Your task to perform on an android device: toggle notification dots Image 0: 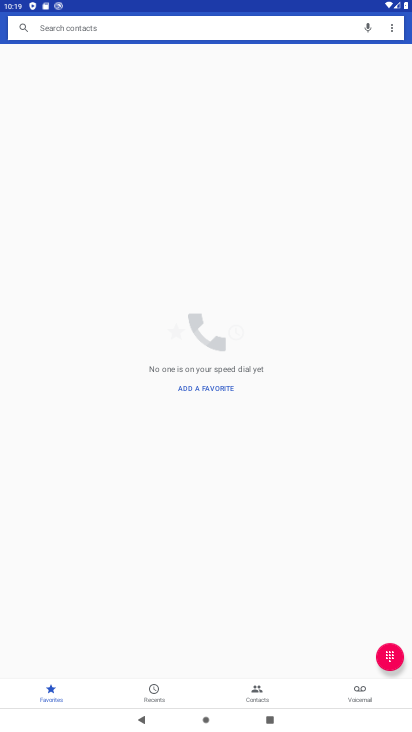
Step 0: press home button
Your task to perform on an android device: toggle notification dots Image 1: 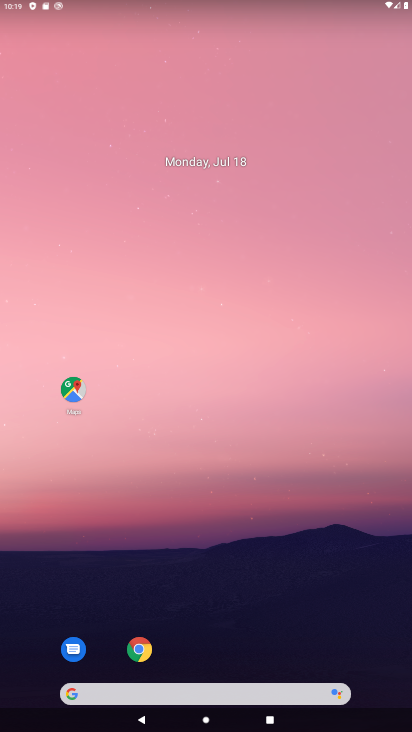
Step 1: drag from (248, 563) to (183, 267)
Your task to perform on an android device: toggle notification dots Image 2: 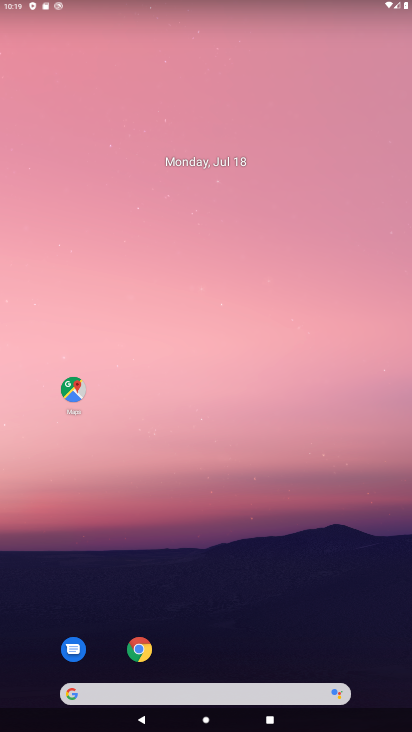
Step 2: drag from (248, 586) to (207, 6)
Your task to perform on an android device: toggle notification dots Image 3: 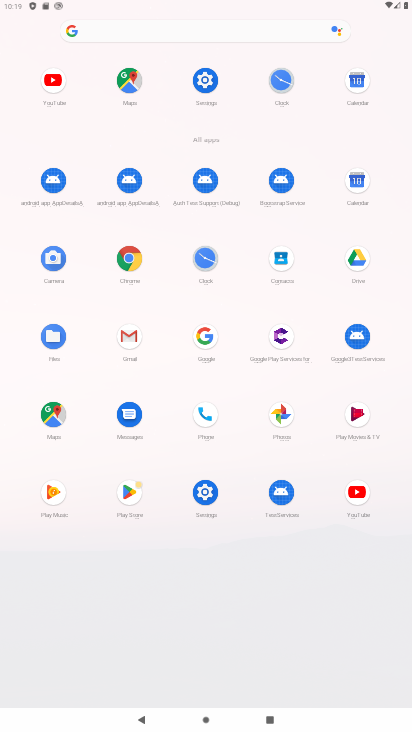
Step 3: click (202, 77)
Your task to perform on an android device: toggle notification dots Image 4: 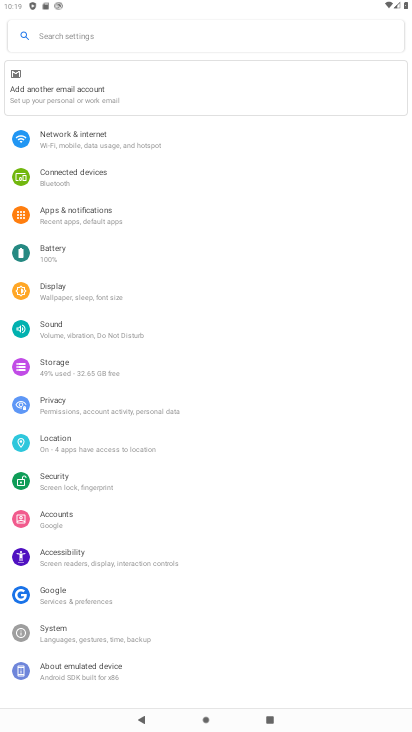
Step 4: click (65, 217)
Your task to perform on an android device: toggle notification dots Image 5: 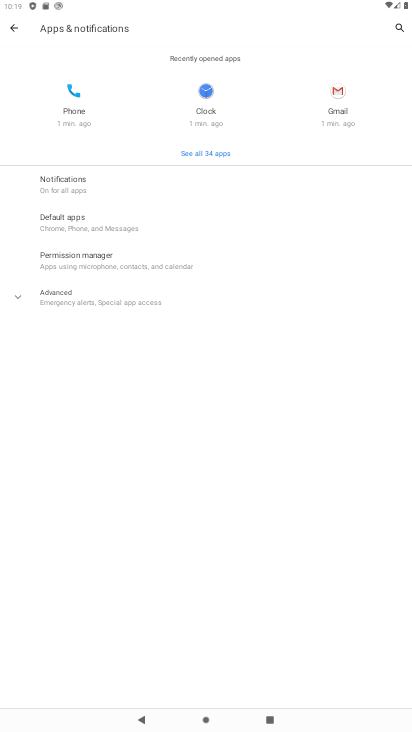
Step 5: click (62, 177)
Your task to perform on an android device: toggle notification dots Image 6: 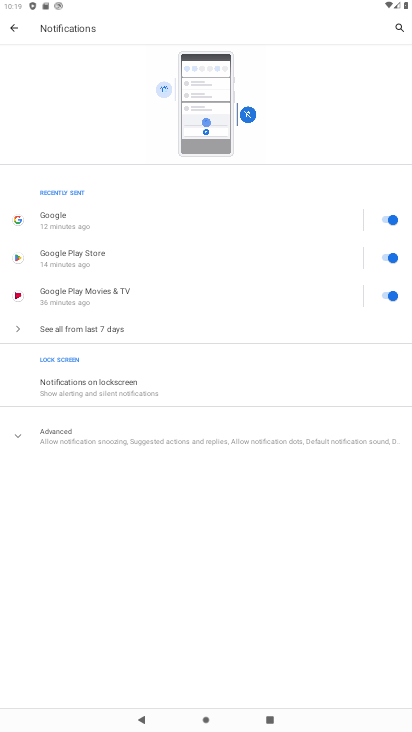
Step 6: click (97, 377)
Your task to perform on an android device: toggle notification dots Image 7: 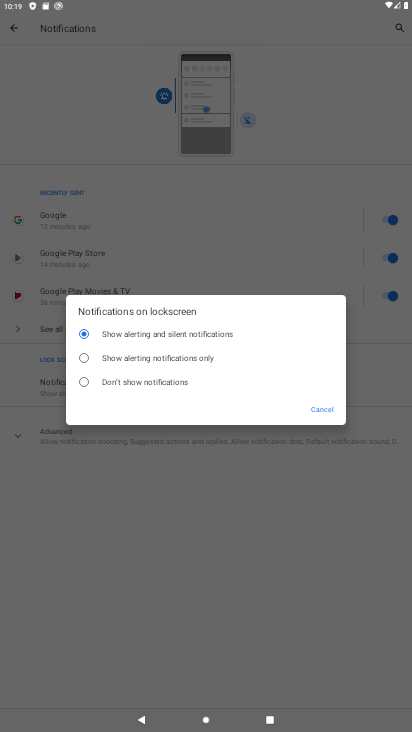
Step 7: click (82, 387)
Your task to perform on an android device: toggle notification dots Image 8: 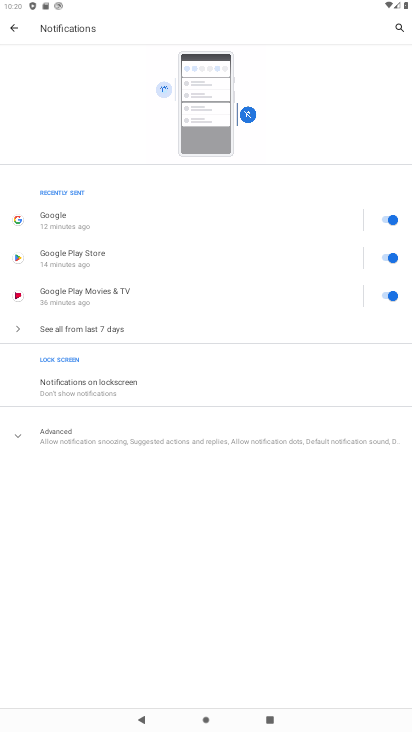
Step 8: task complete